Your task to perform on an android device: Turn off the flashlight Image 0: 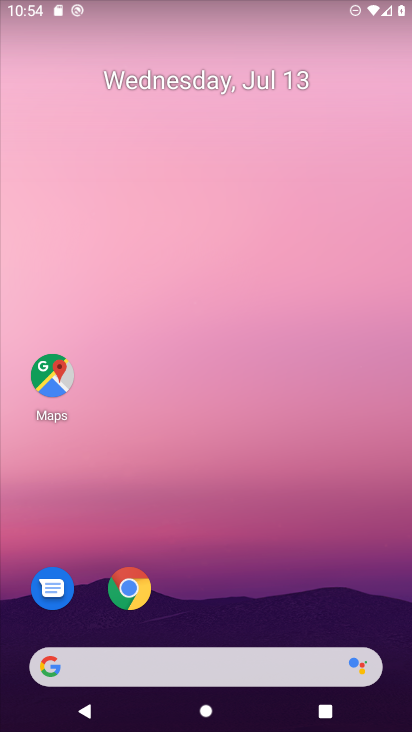
Step 0: drag from (252, 534) to (245, 190)
Your task to perform on an android device: Turn off the flashlight Image 1: 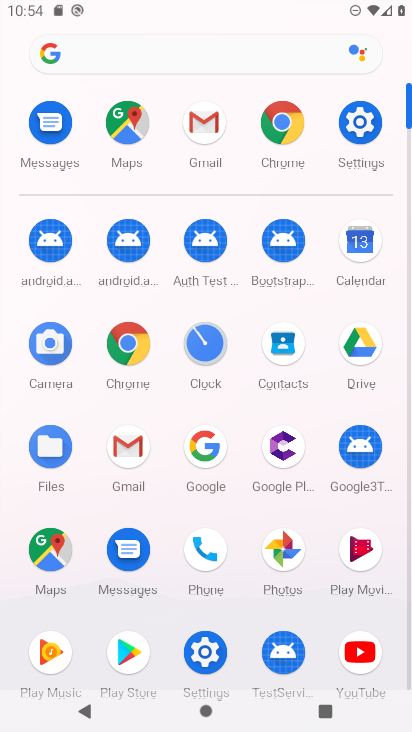
Step 1: drag from (207, 601) to (366, 378)
Your task to perform on an android device: Turn off the flashlight Image 2: 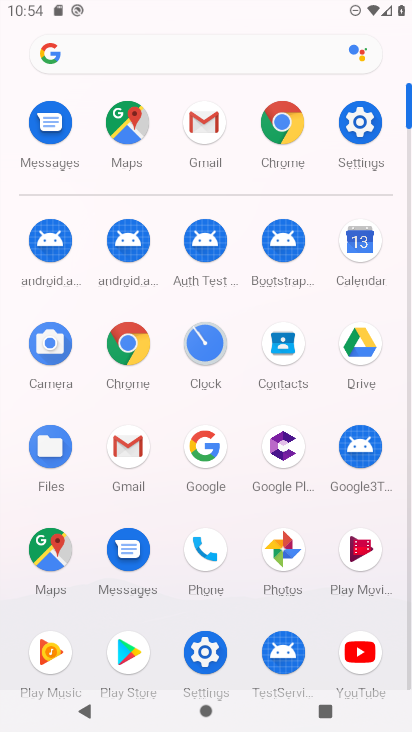
Step 2: click (201, 649)
Your task to perform on an android device: Turn off the flashlight Image 3: 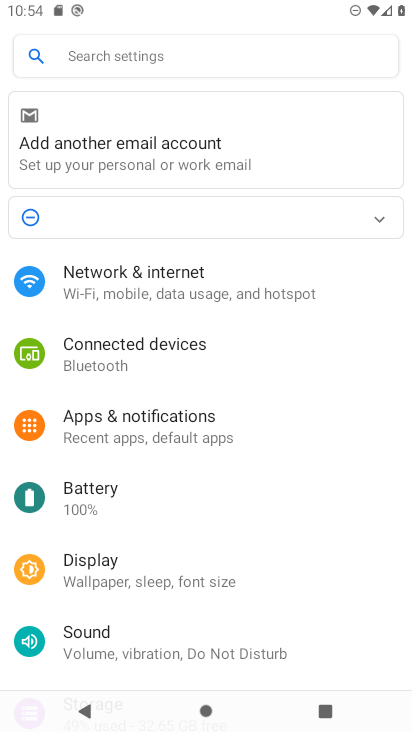
Step 3: drag from (167, 617) to (162, 474)
Your task to perform on an android device: Turn off the flashlight Image 4: 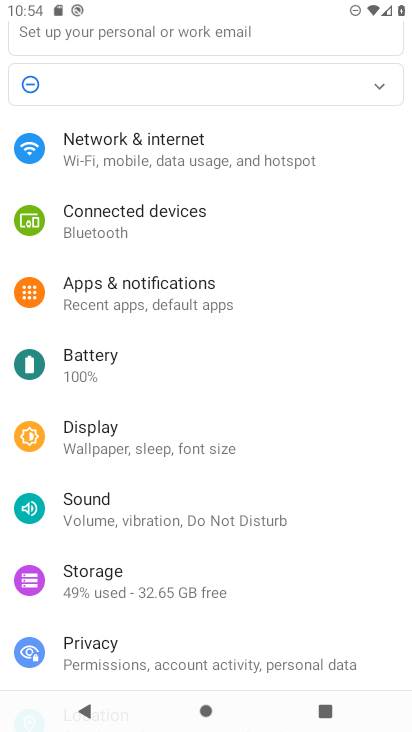
Step 4: drag from (223, 243) to (235, 711)
Your task to perform on an android device: Turn off the flashlight Image 5: 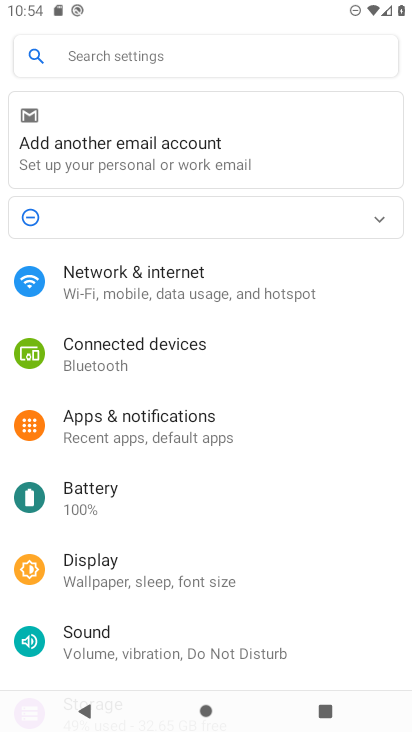
Step 5: click (210, 53)
Your task to perform on an android device: Turn off the flashlight Image 6: 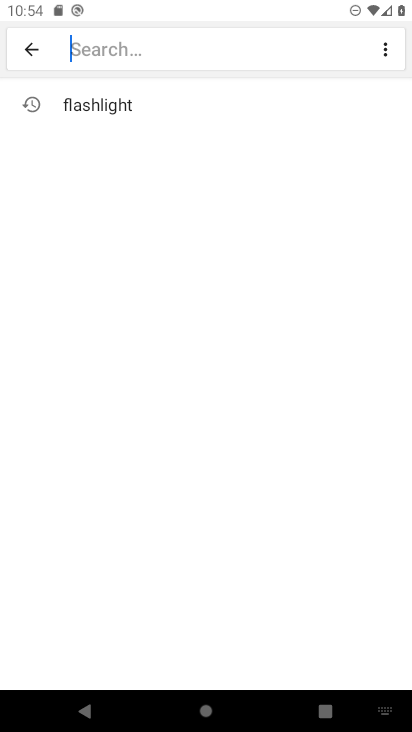
Step 6: type "flashlight"
Your task to perform on an android device: Turn off the flashlight Image 7: 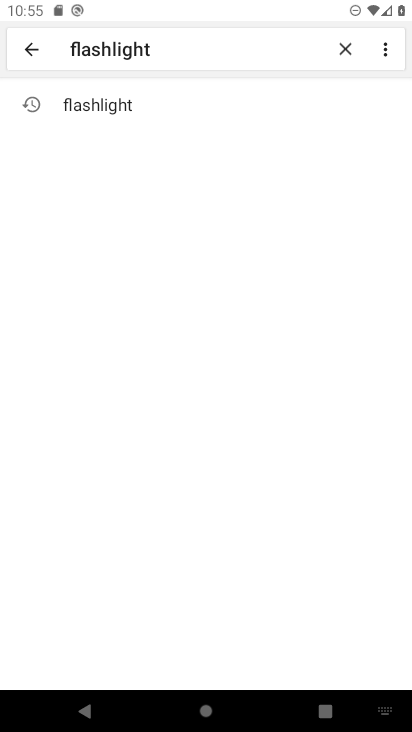
Step 7: click (105, 103)
Your task to perform on an android device: Turn off the flashlight Image 8: 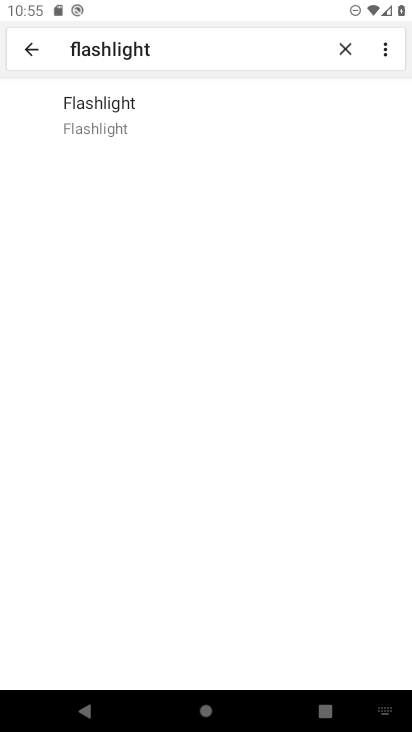
Step 8: task complete